Your task to perform on an android device: remove spam from my inbox in the gmail app Image 0: 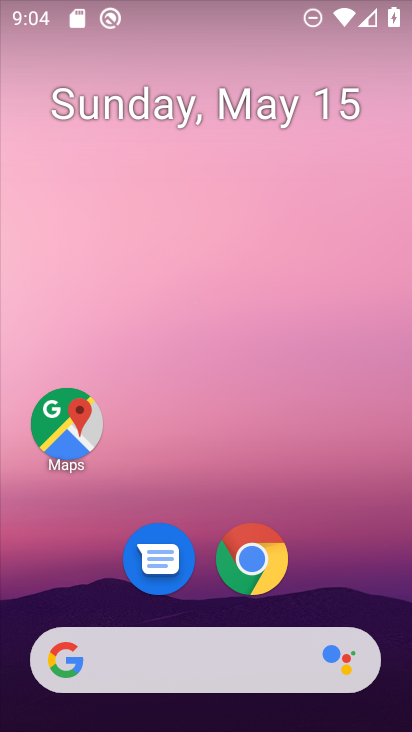
Step 0: drag from (381, 593) to (405, 68)
Your task to perform on an android device: remove spam from my inbox in the gmail app Image 1: 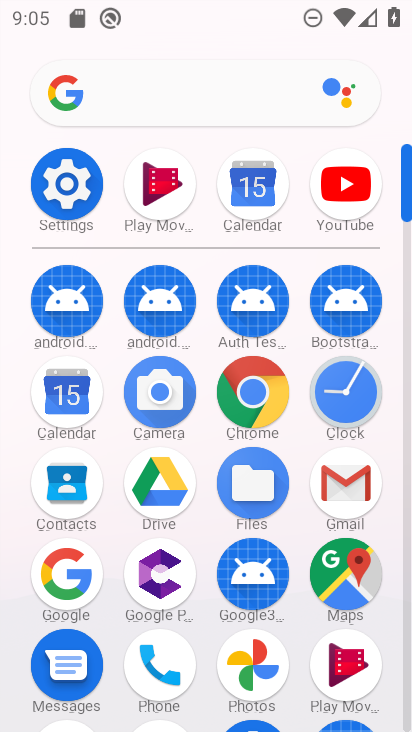
Step 1: click (343, 486)
Your task to perform on an android device: remove spam from my inbox in the gmail app Image 2: 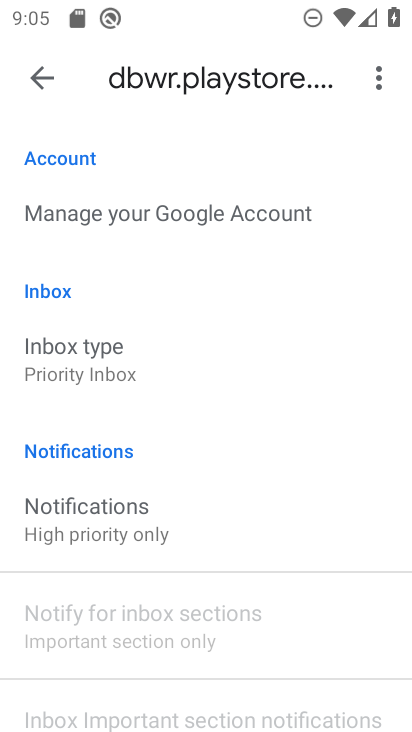
Step 2: drag from (161, 626) to (159, 342)
Your task to perform on an android device: remove spam from my inbox in the gmail app Image 3: 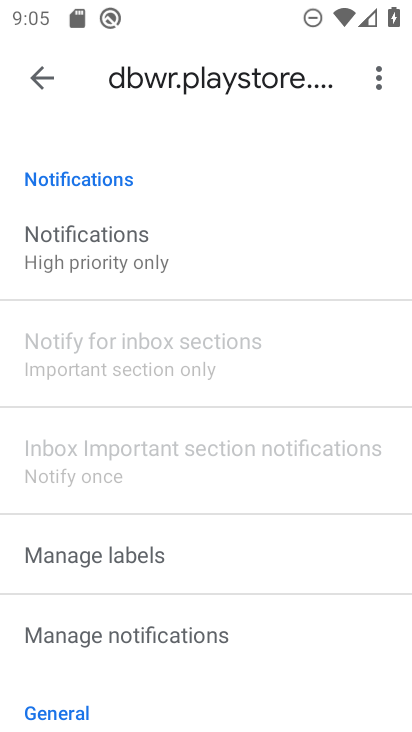
Step 3: click (35, 96)
Your task to perform on an android device: remove spam from my inbox in the gmail app Image 4: 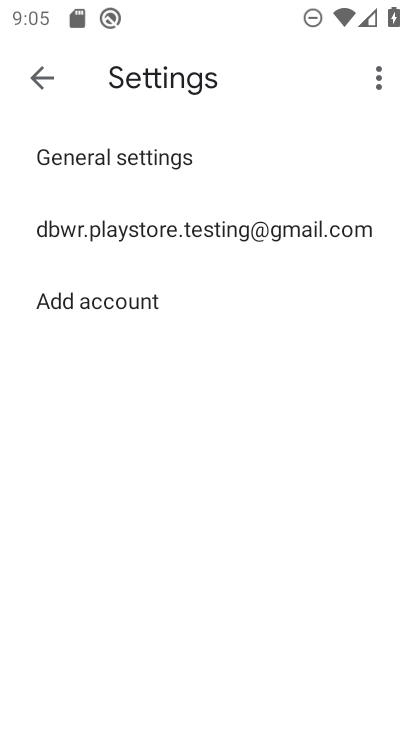
Step 4: click (40, 87)
Your task to perform on an android device: remove spam from my inbox in the gmail app Image 5: 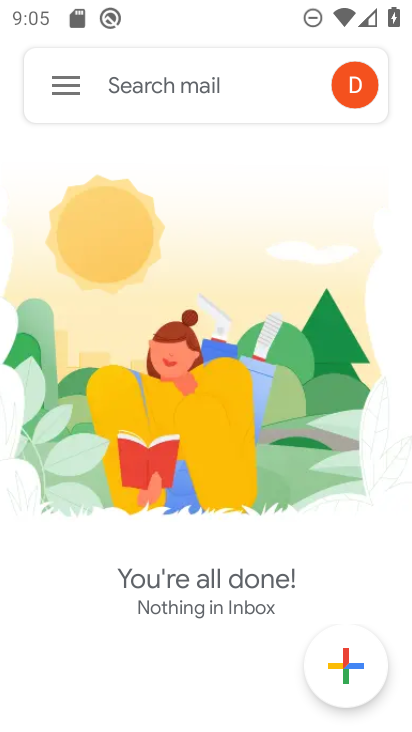
Step 5: click (42, 85)
Your task to perform on an android device: remove spam from my inbox in the gmail app Image 6: 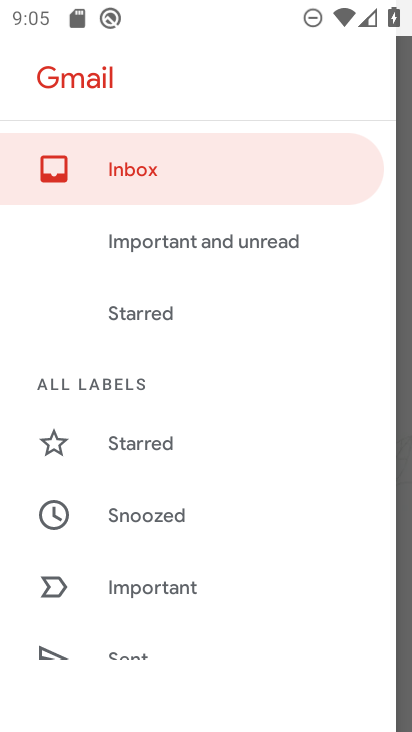
Step 6: drag from (187, 563) to (230, 246)
Your task to perform on an android device: remove spam from my inbox in the gmail app Image 7: 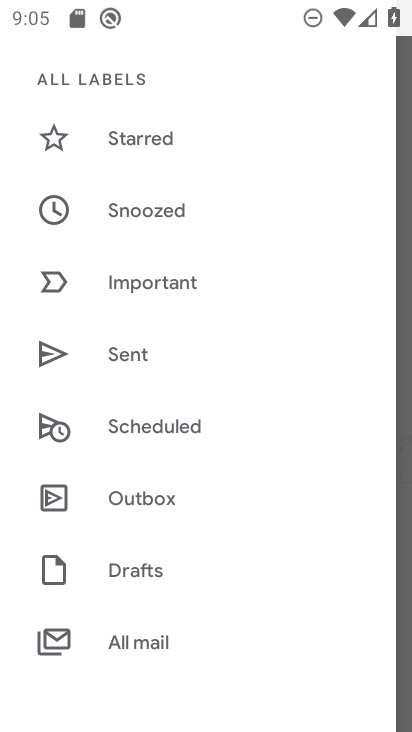
Step 7: drag from (210, 619) to (223, 545)
Your task to perform on an android device: remove spam from my inbox in the gmail app Image 8: 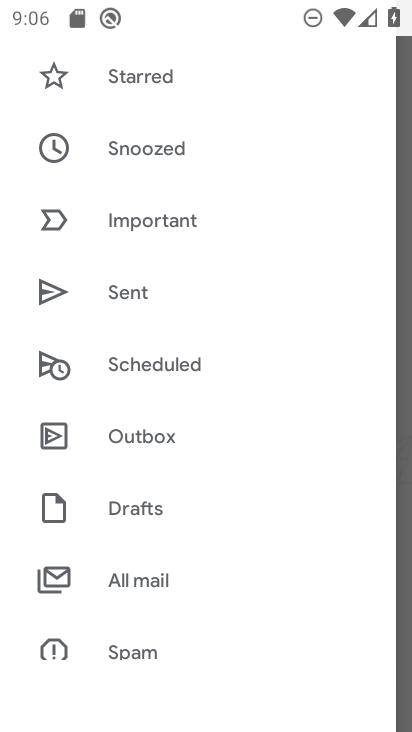
Step 8: click (179, 631)
Your task to perform on an android device: remove spam from my inbox in the gmail app Image 9: 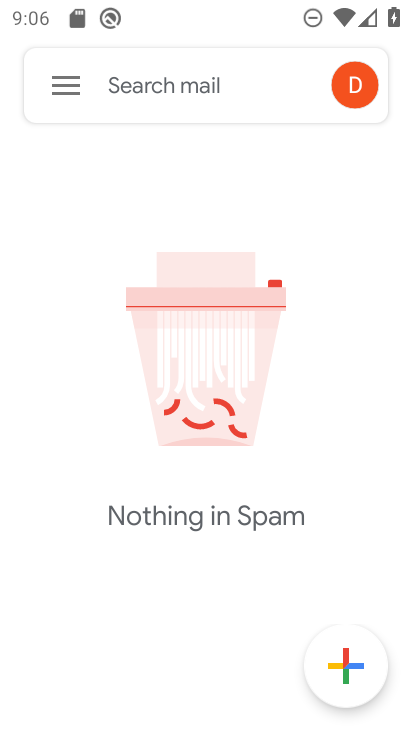
Step 9: task complete